Your task to perform on an android device: toggle pop-ups in chrome Image 0: 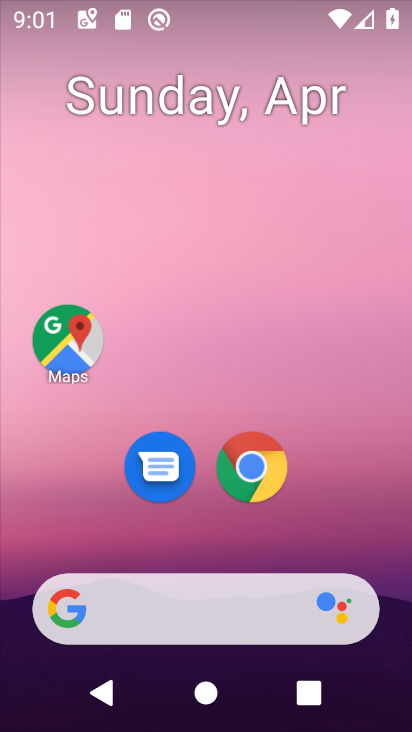
Step 0: click (268, 467)
Your task to perform on an android device: toggle pop-ups in chrome Image 1: 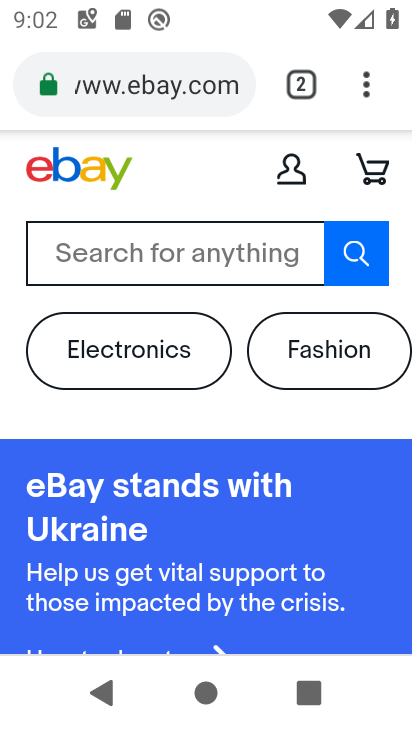
Step 1: click (370, 89)
Your task to perform on an android device: toggle pop-ups in chrome Image 2: 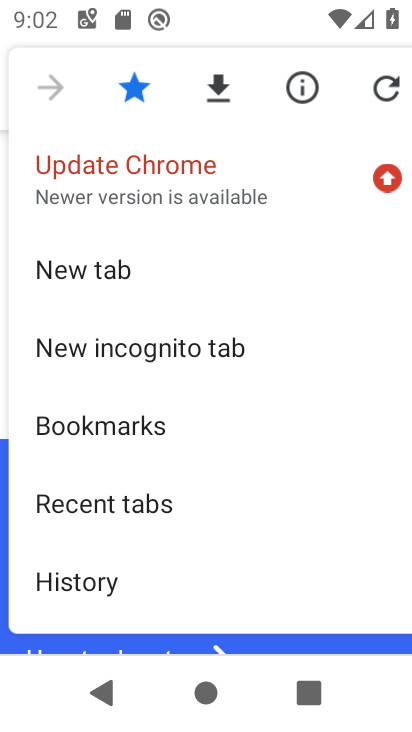
Step 2: drag from (232, 579) to (220, 429)
Your task to perform on an android device: toggle pop-ups in chrome Image 3: 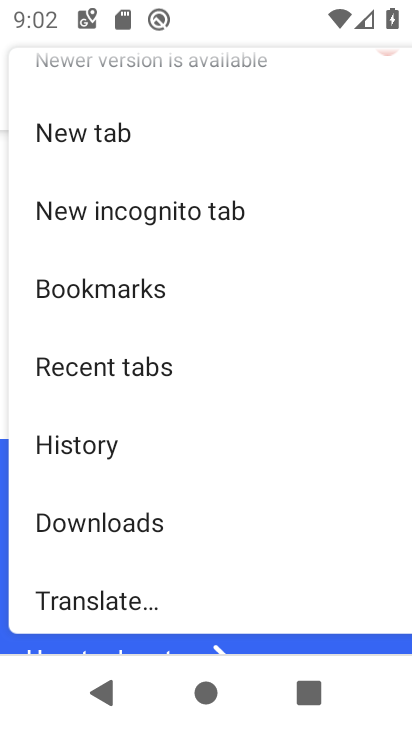
Step 3: drag from (201, 596) to (274, 406)
Your task to perform on an android device: toggle pop-ups in chrome Image 4: 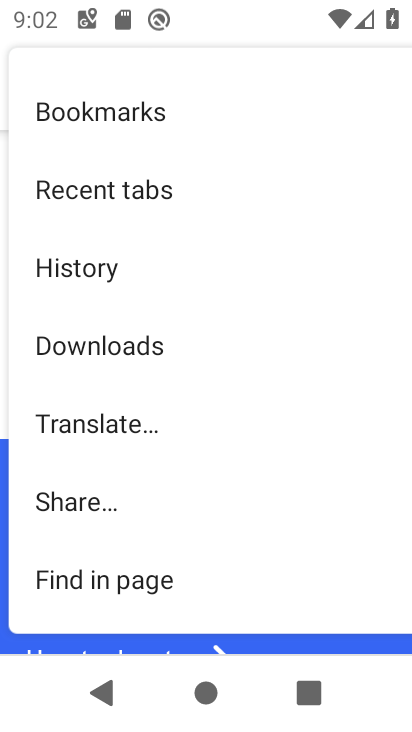
Step 4: drag from (198, 541) to (206, 383)
Your task to perform on an android device: toggle pop-ups in chrome Image 5: 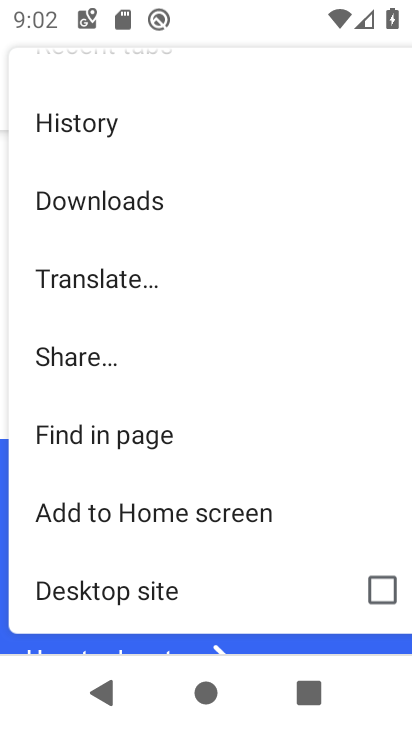
Step 5: drag from (253, 520) to (306, 337)
Your task to perform on an android device: toggle pop-ups in chrome Image 6: 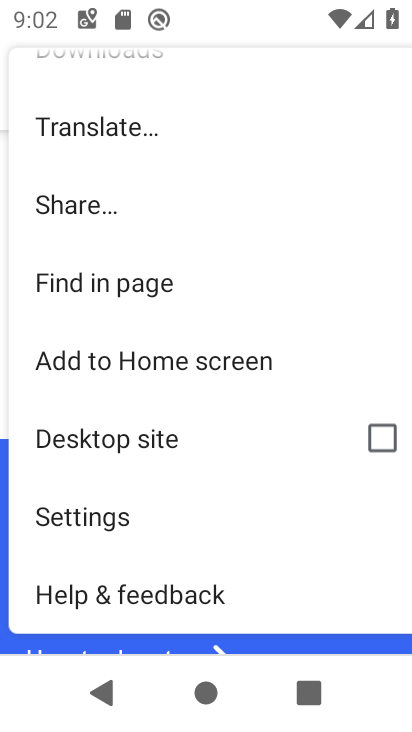
Step 6: click (233, 523)
Your task to perform on an android device: toggle pop-ups in chrome Image 7: 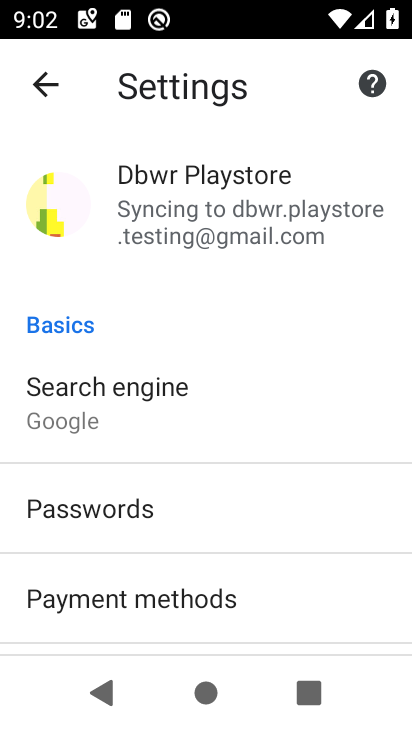
Step 7: drag from (230, 548) to (317, 263)
Your task to perform on an android device: toggle pop-ups in chrome Image 8: 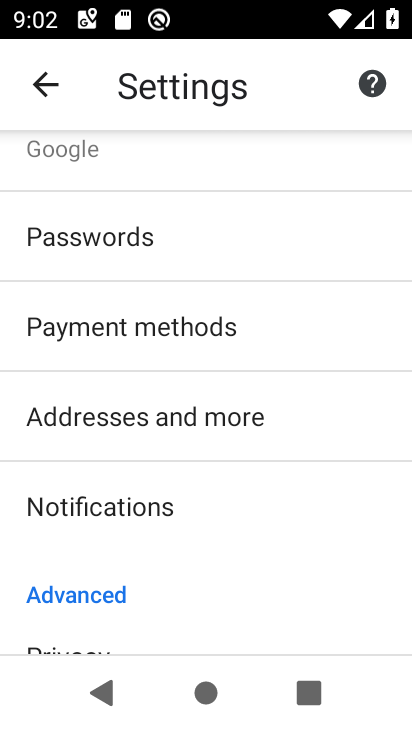
Step 8: drag from (205, 559) to (318, 274)
Your task to perform on an android device: toggle pop-ups in chrome Image 9: 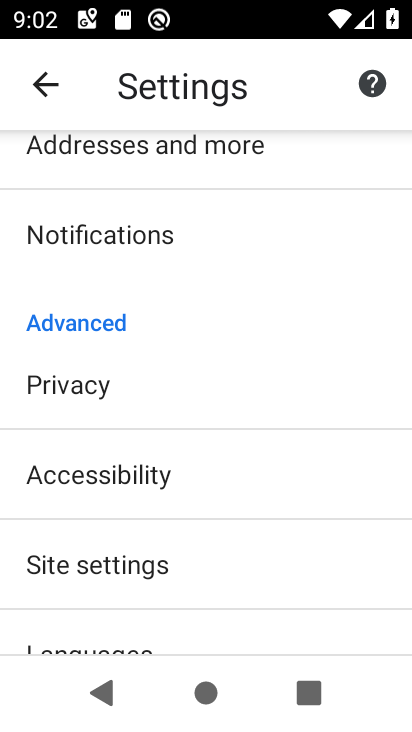
Step 9: click (244, 582)
Your task to perform on an android device: toggle pop-ups in chrome Image 10: 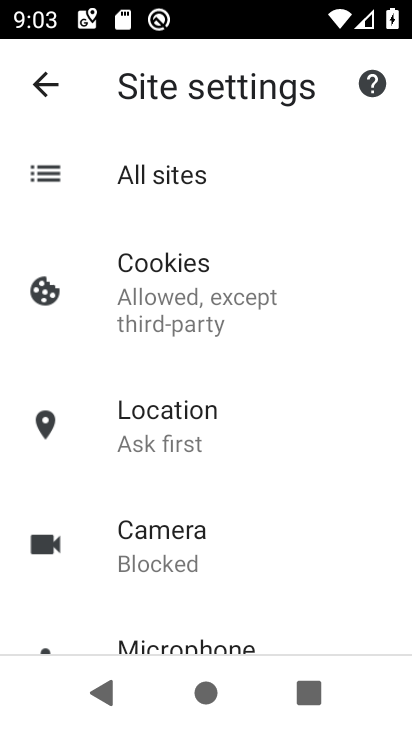
Step 10: drag from (251, 595) to (303, 415)
Your task to perform on an android device: toggle pop-ups in chrome Image 11: 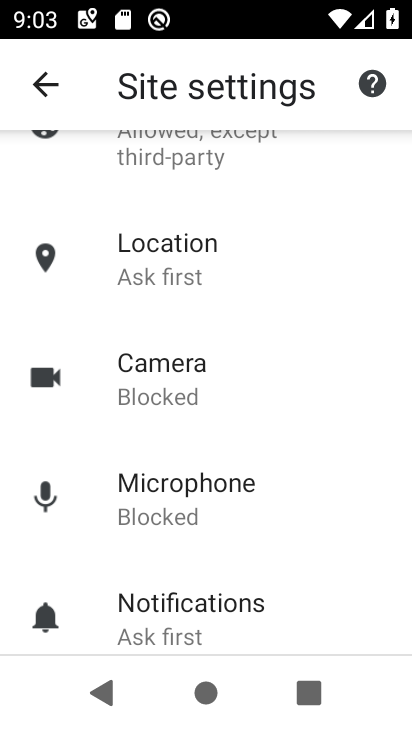
Step 11: drag from (182, 548) to (220, 443)
Your task to perform on an android device: toggle pop-ups in chrome Image 12: 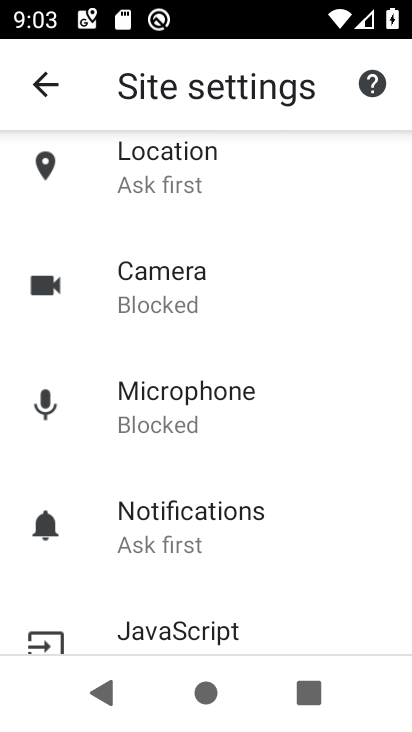
Step 12: drag from (211, 537) to (252, 450)
Your task to perform on an android device: toggle pop-ups in chrome Image 13: 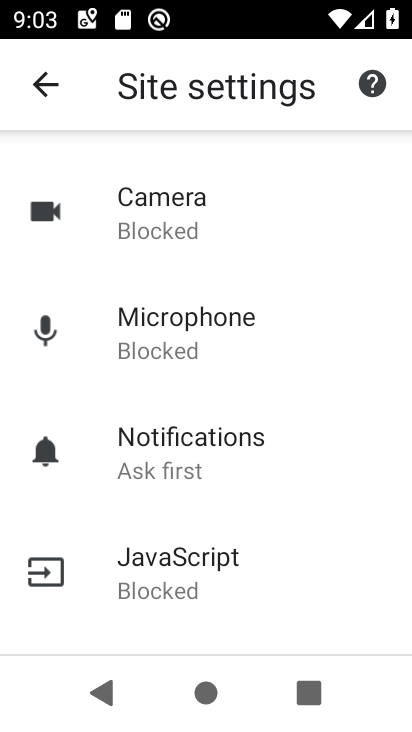
Step 13: drag from (215, 568) to (248, 448)
Your task to perform on an android device: toggle pop-ups in chrome Image 14: 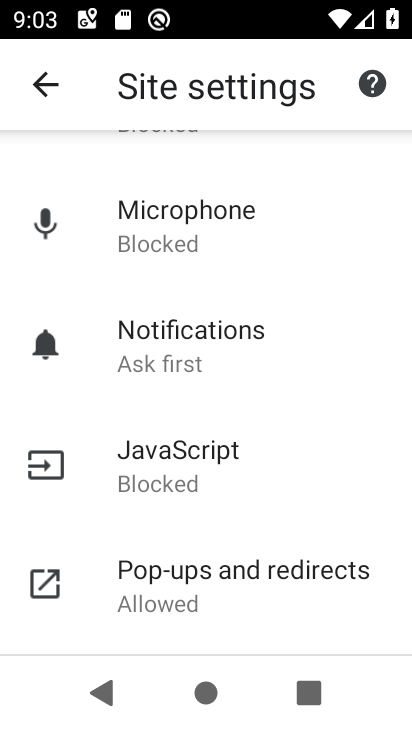
Step 14: click (248, 562)
Your task to perform on an android device: toggle pop-ups in chrome Image 15: 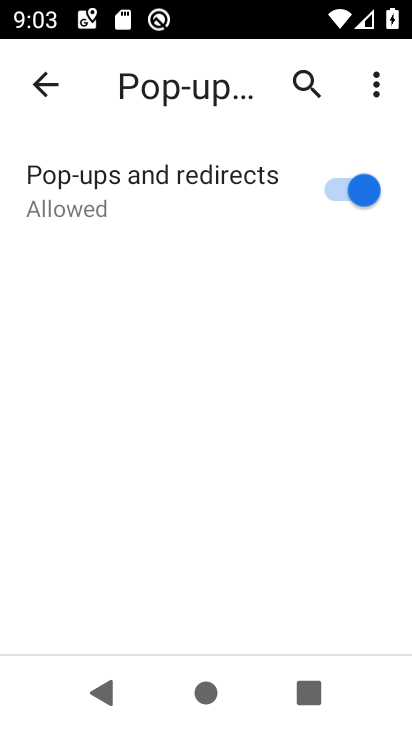
Step 15: click (354, 173)
Your task to perform on an android device: toggle pop-ups in chrome Image 16: 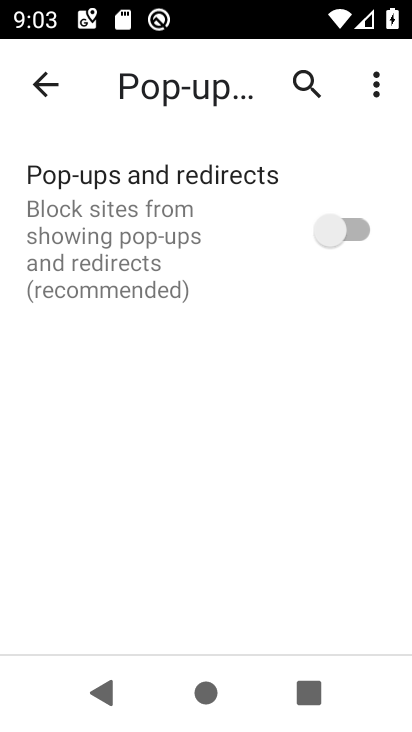
Step 16: task complete